Your task to perform on an android device: toggle pop-ups in chrome Image 0: 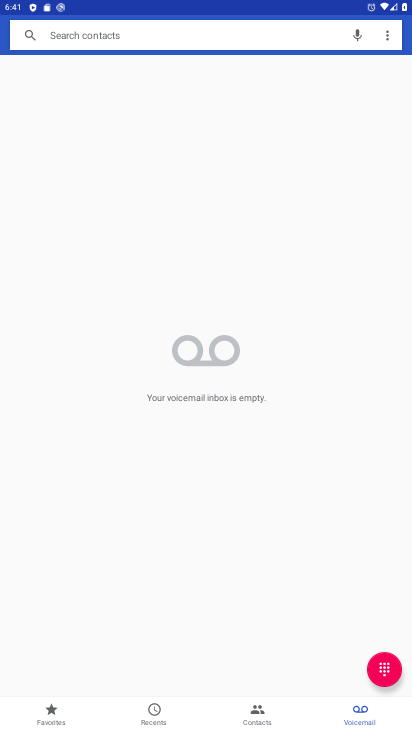
Step 0: press home button
Your task to perform on an android device: toggle pop-ups in chrome Image 1: 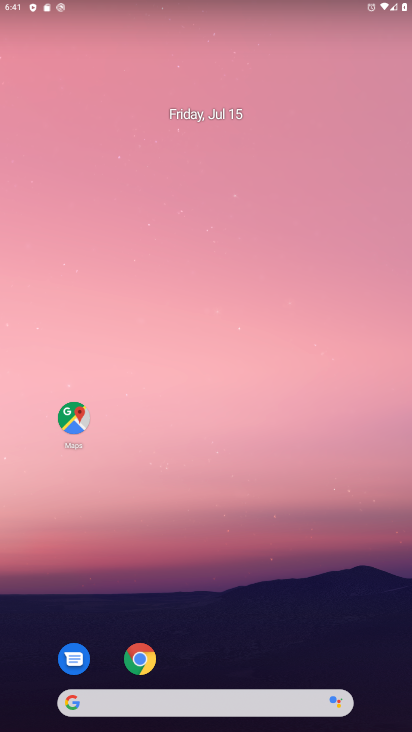
Step 1: click (144, 661)
Your task to perform on an android device: toggle pop-ups in chrome Image 2: 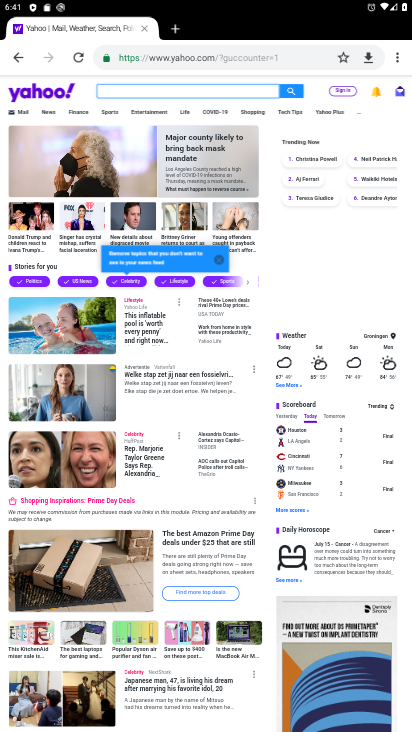
Step 2: click (396, 58)
Your task to perform on an android device: toggle pop-ups in chrome Image 3: 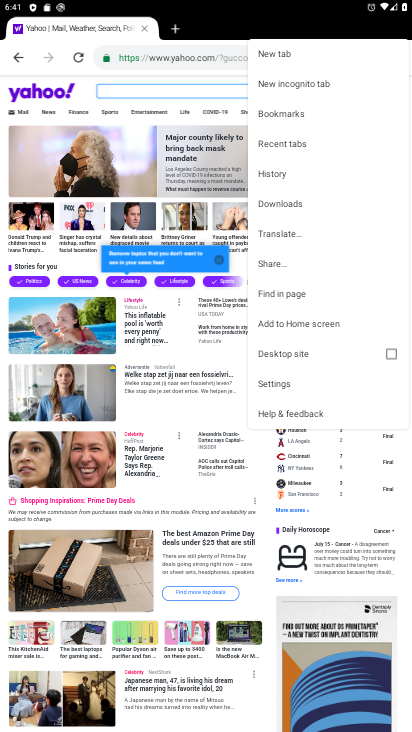
Step 3: click (279, 385)
Your task to perform on an android device: toggle pop-ups in chrome Image 4: 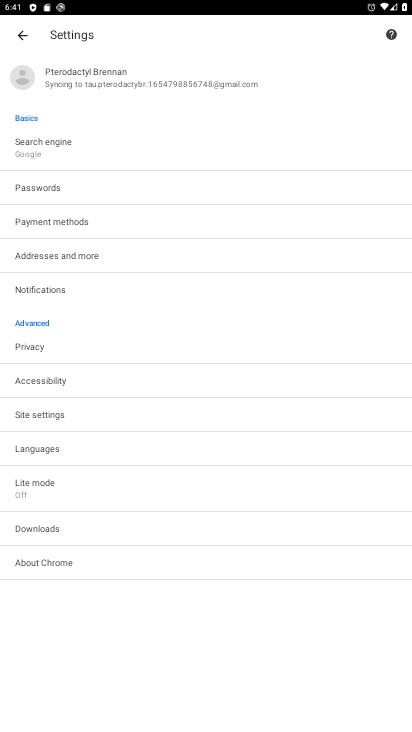
Step 4: click (32, 409)
Your task to perform on an android device: toggle pop-ups in chrome Image 5: 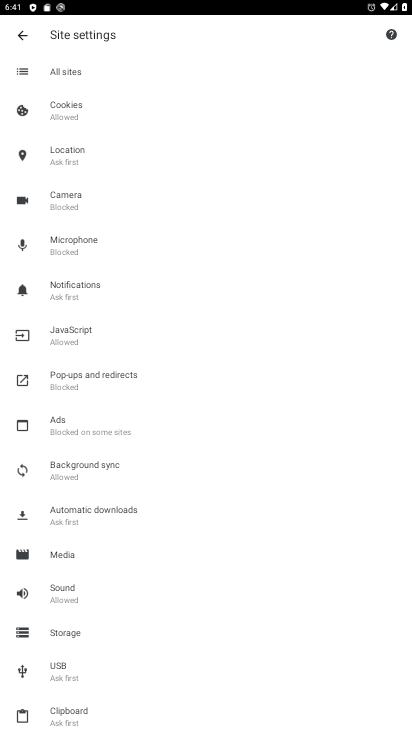
Step 5: click (73, 375)
Your task to perform on an android device: toggle pop-ups in chrome Image 6: 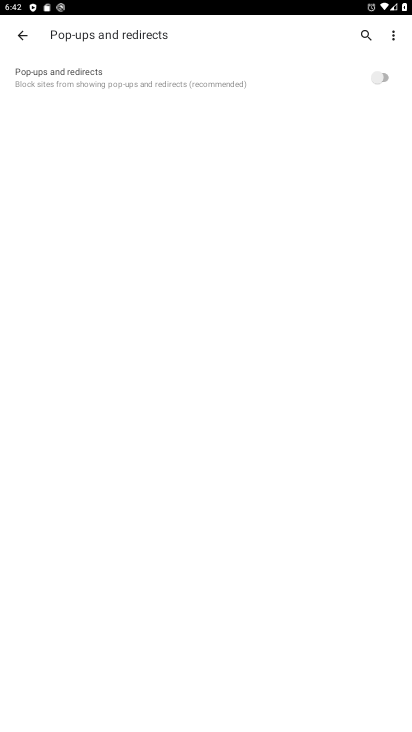
Step 6: click (387, 76)
Your task to perform on an android device: toggle pop-ups in chrome Image 7: 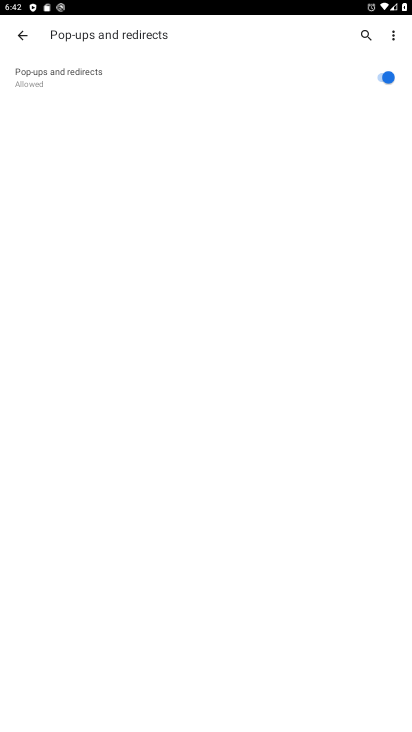
Step 7: task complete